Your task to perform on an android device: turn on the 12-hour format for clock Image 0: 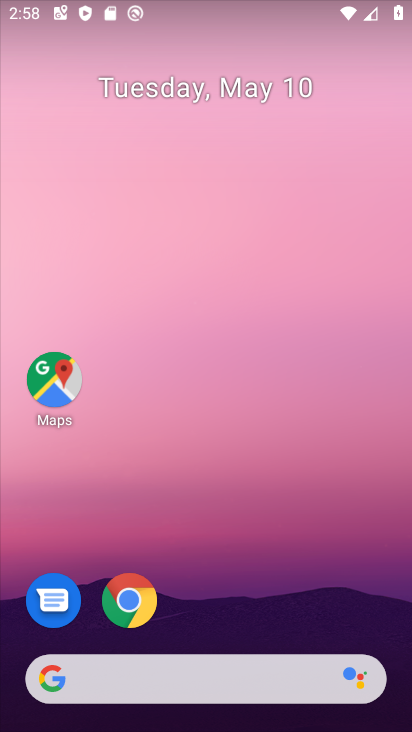
Step 0: drag from (138, 665) to (155, 101)
Your task to perform on an android device: turn on the 12-hour format for clock Image 1: 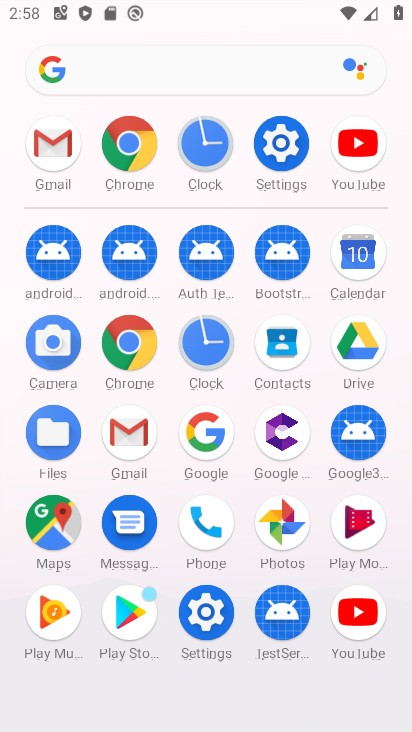
Step 1: click (297, 150)
Your task to perform on an android device: turn on the 12-hour format for clock Image 2: 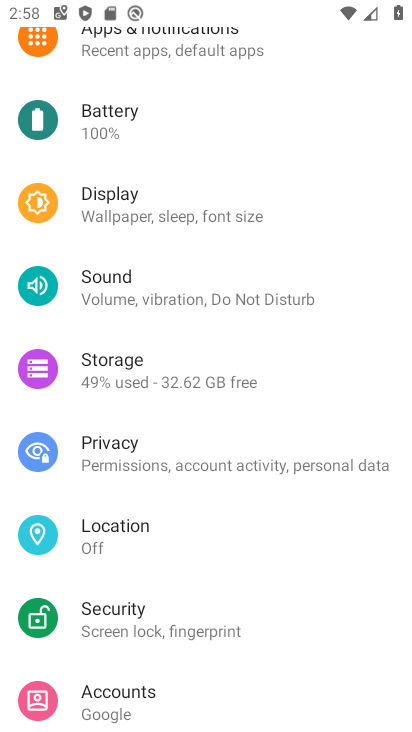
Step 2: press home button
Your task to perform on an android device: turn on the 12-hour format for clock Image 3: 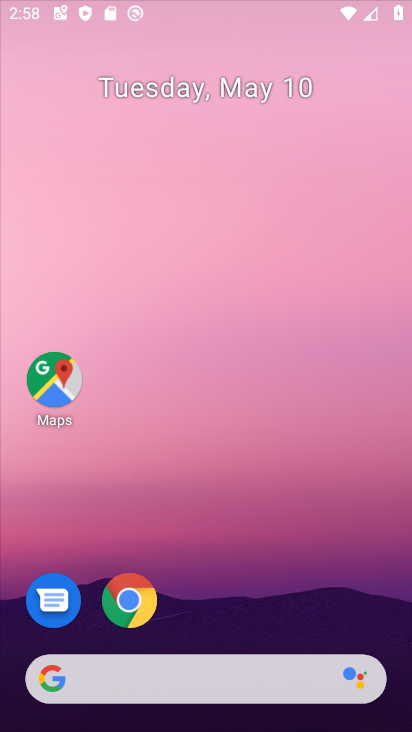
Step 3: drag from (279, 565) to (288, 163)
Your task to perform on an android device: turn on the 12-hour format for clock Image 4: 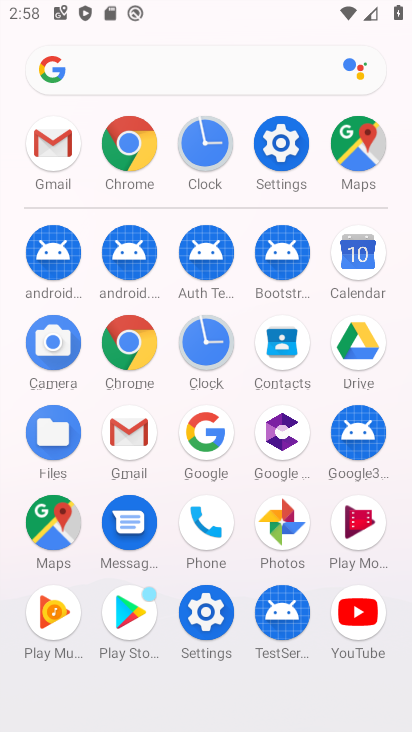
Step 4: click (219, 360)
Your task to perform on an android device: turn on the 12-hour format for clock Image 5: 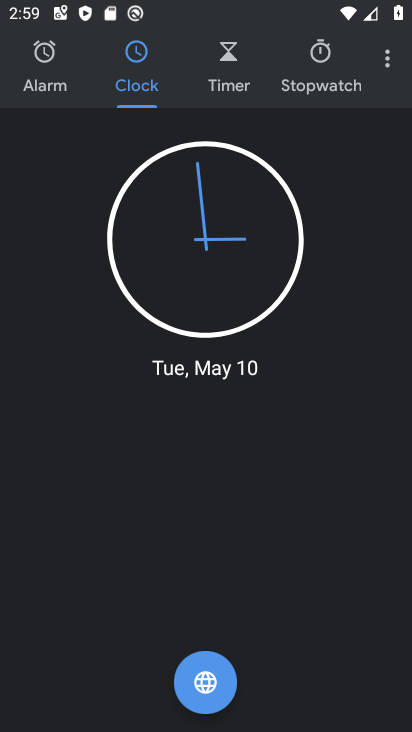
Step 5: click (381, 75)
Your task to perform on an android device: turn on the 12-hour format for clock Image 6: 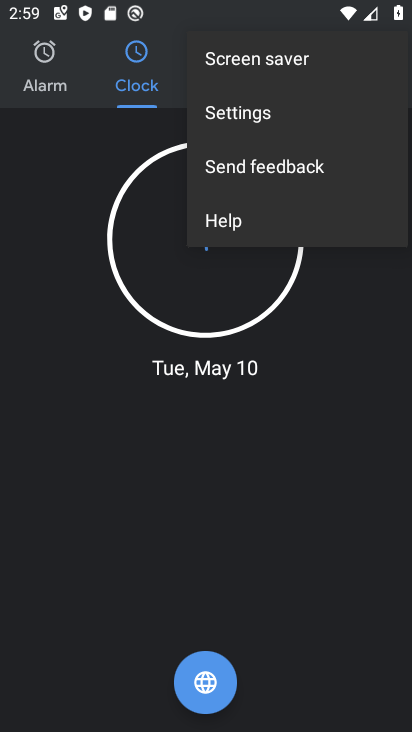
Step 6: click (272, 123)
Your task to perform on an android device: turn on the 12-hour format for clock Image 7: 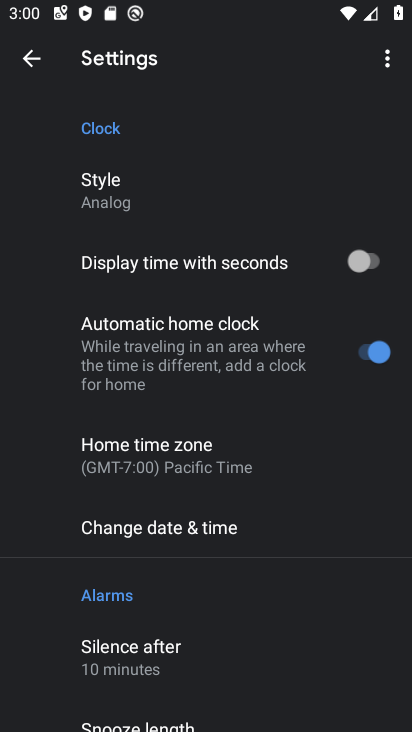
Step 7: click (223, 531)
Your task to perform on an android device: turn on the 12-hour format for clock Image 8: 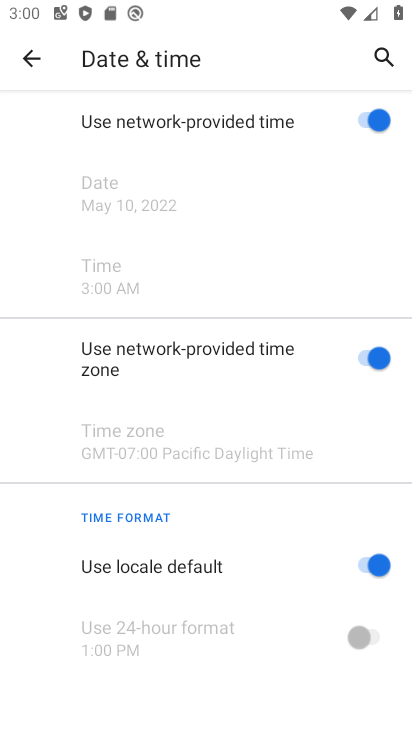
Step 8: task complete